Your task to perform on an android device: stop showing notifications on the lock screen Image 0: 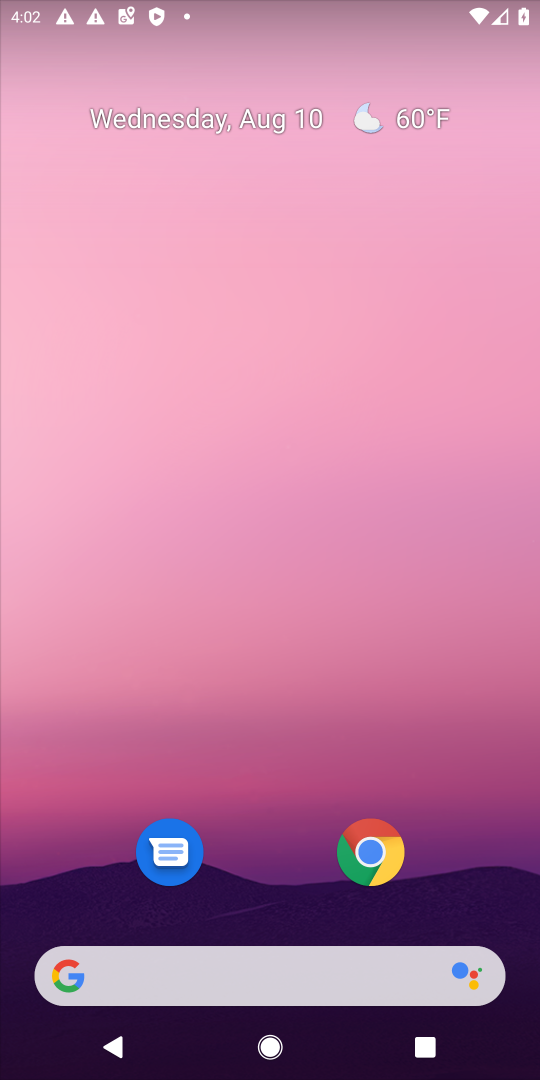
Step 0: drag from (220, 893) to (401, 88)
Your task to perform on an android device: stop showing notifications on the lock screen Image 1: 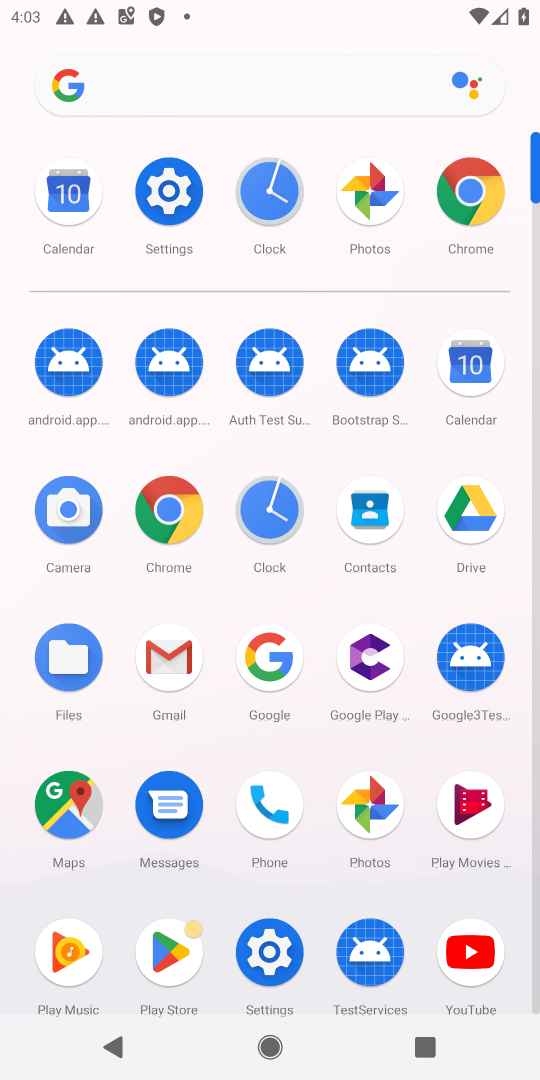
Step 1: click (270, 962)
Your task to perform on an android device: stop showing notifications on the lock screen Image 2: 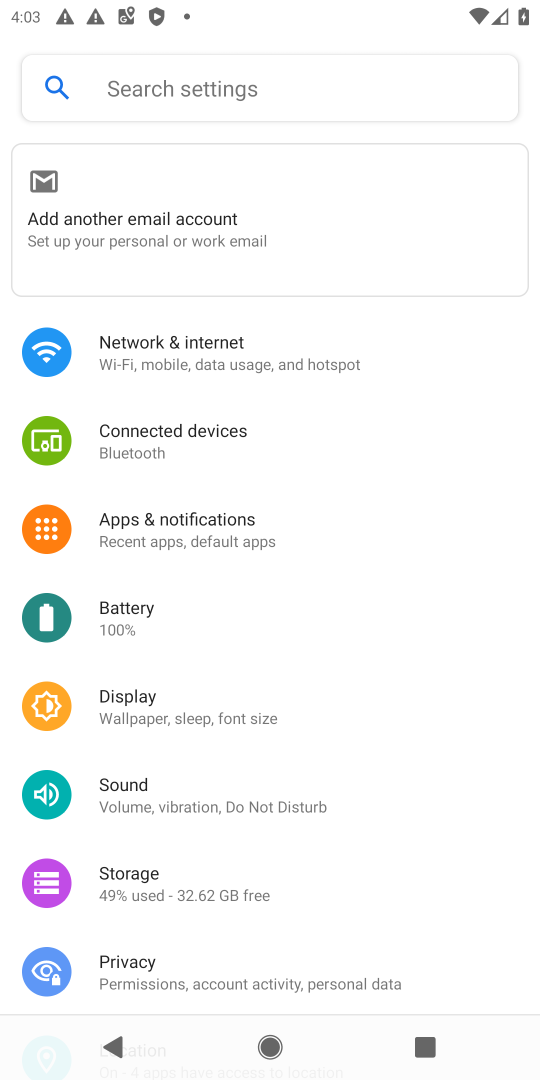
Step 2: click (175, 522)
Your task to perform on an android device: stop showing notifications on the lock screen Image 3: 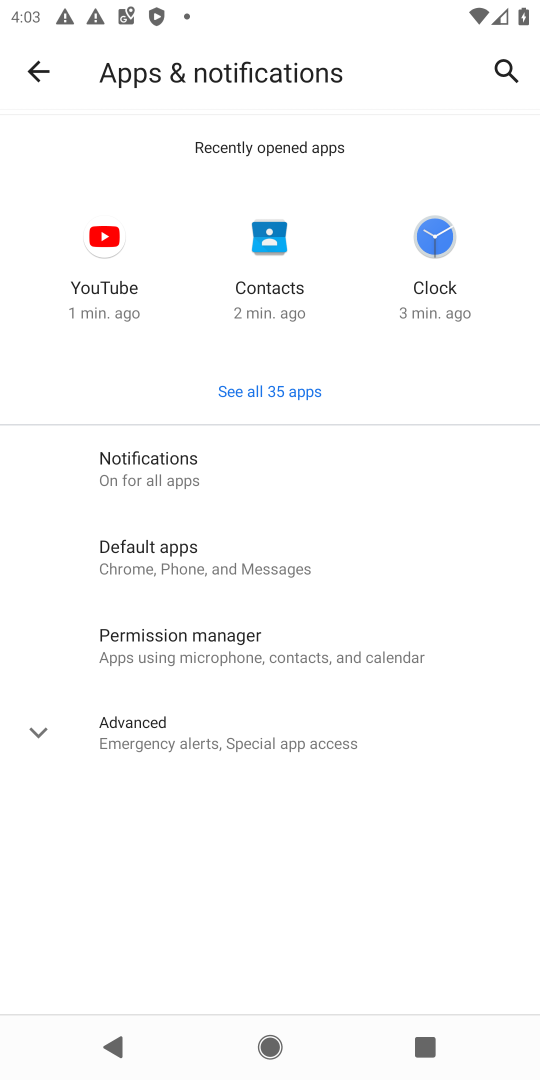
Step 3: click (177, 479)
Your task to perform on an android device: stop showing notifications on the lock screen Image 4: 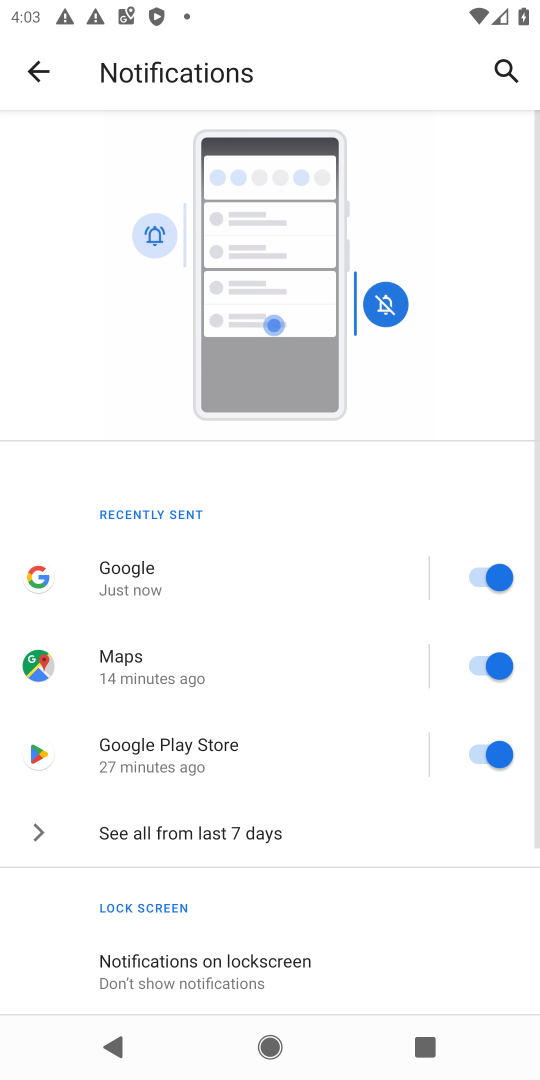
Step 4: click (245, 981)
Your task to perform on an android device: stop showing notifications on the lock screen Image 5: 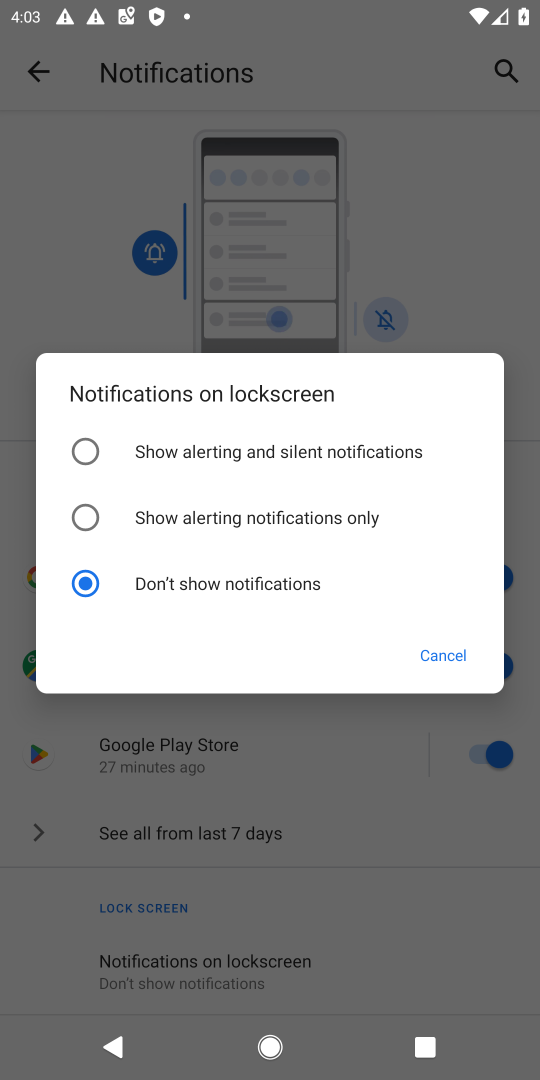
Step 5: task complete